Your task to perform on an android device: add a label to a message in the gmail app Image 0: 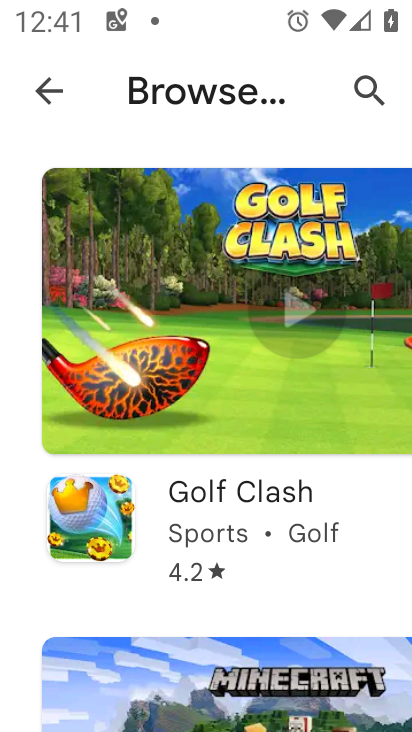
Step 0: press home button
Your task to perform on an android device: add a label to a message in the gmail app Image 1: 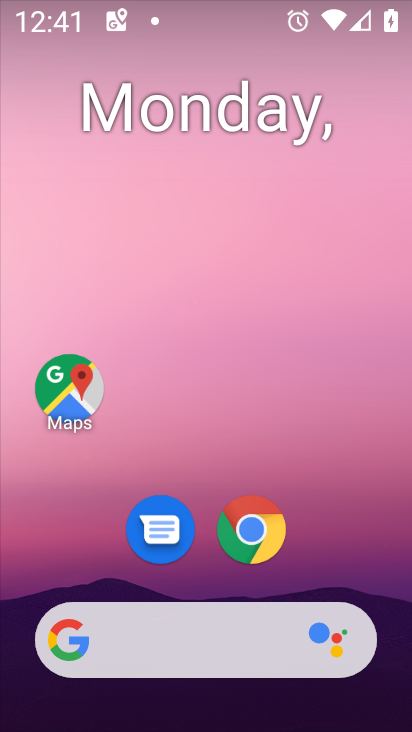
Step 1: drag from (164, 606) to (174, 161)
Your task to perform on an android device: add a label to a message in the gmail app Image 2: 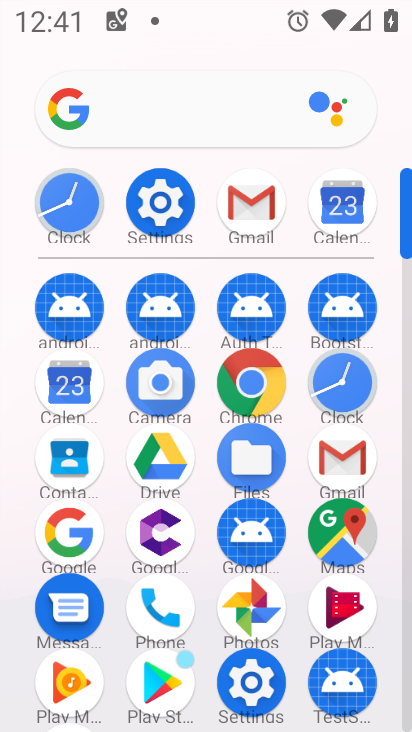
Step 2: click (251, 225)
Your task to perform on an android device: add a label to a message in the gmail app Image 3: 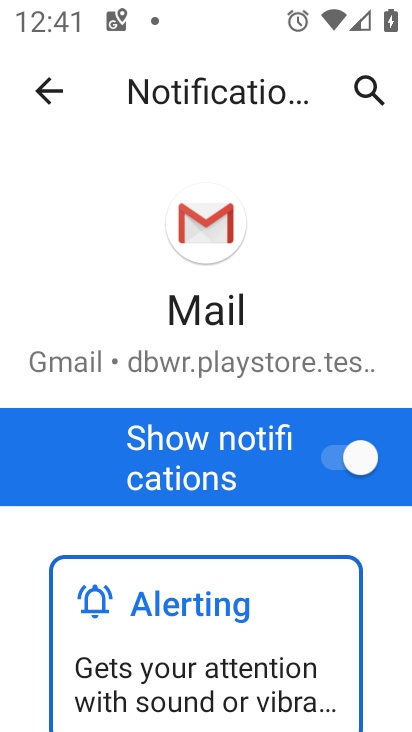
Step 3: click (50, 114)
Your task to perform on an android device: add a label to a message in the gmail app Image 4: 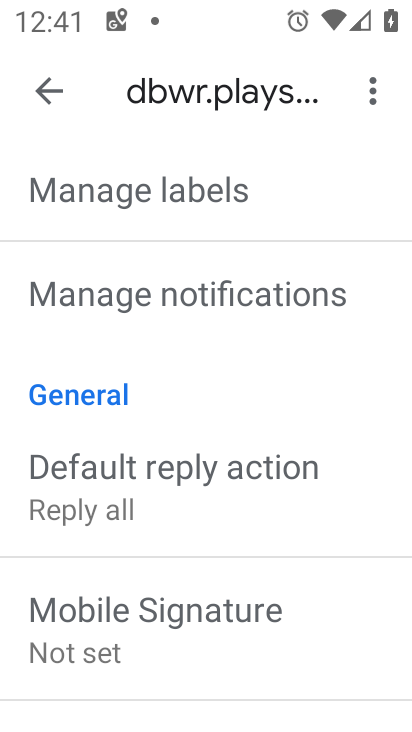
Step 4: click (57, 102)
Your task to perform on an android device: add a label to a message in the gmail app Image 5: 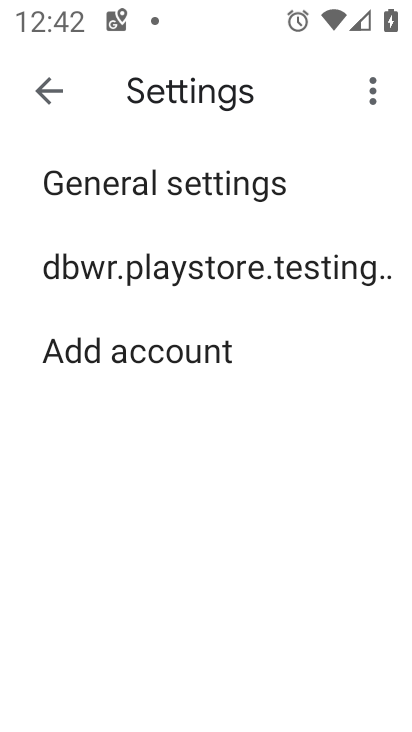
Step 5: click (48, 87)
Your task to perform on an android device: add a label to a message in the gmail app Image 6: 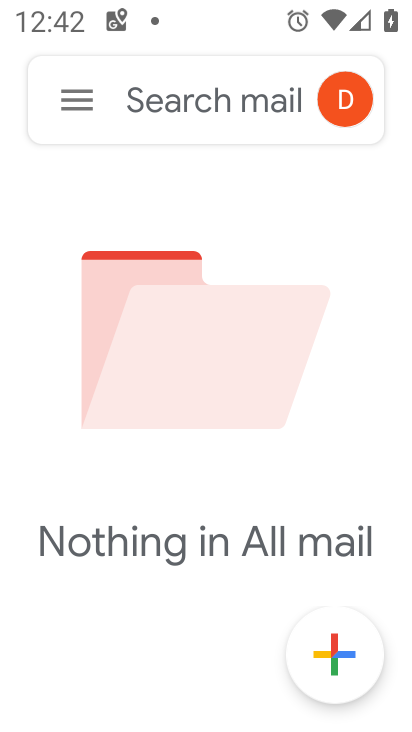
Step 6: click (74, 96)
Your task to perform on an android device: add a label to a message in the gmail app Image 7: 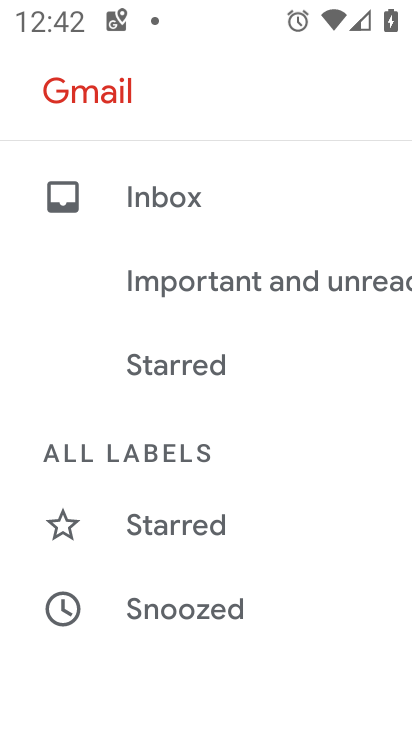
Step 7: click (219, 96)
Your task to perform on an android device: add a label to a message in the gmail app Image 8: 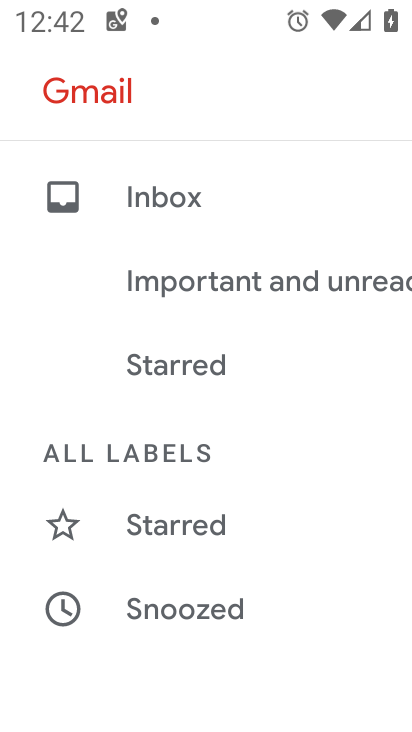
Step 8: click (157, 207)
Your task to perform on an android device: add a label to a message in the gmail app Image 9: 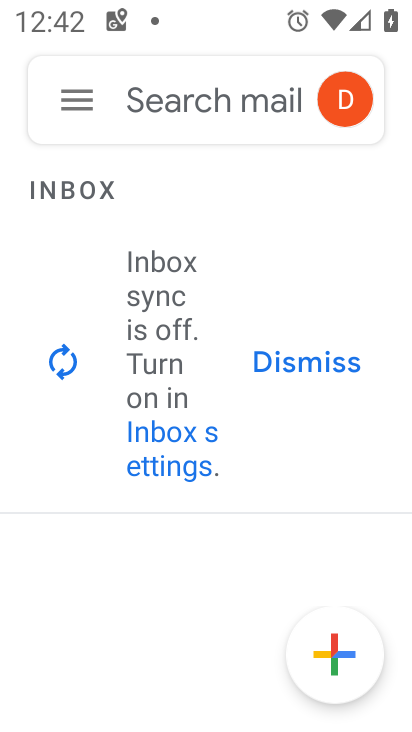
Step 9: task complete